Your task to perform on an android device: What's the weather like in Johannesburg? Image 0: 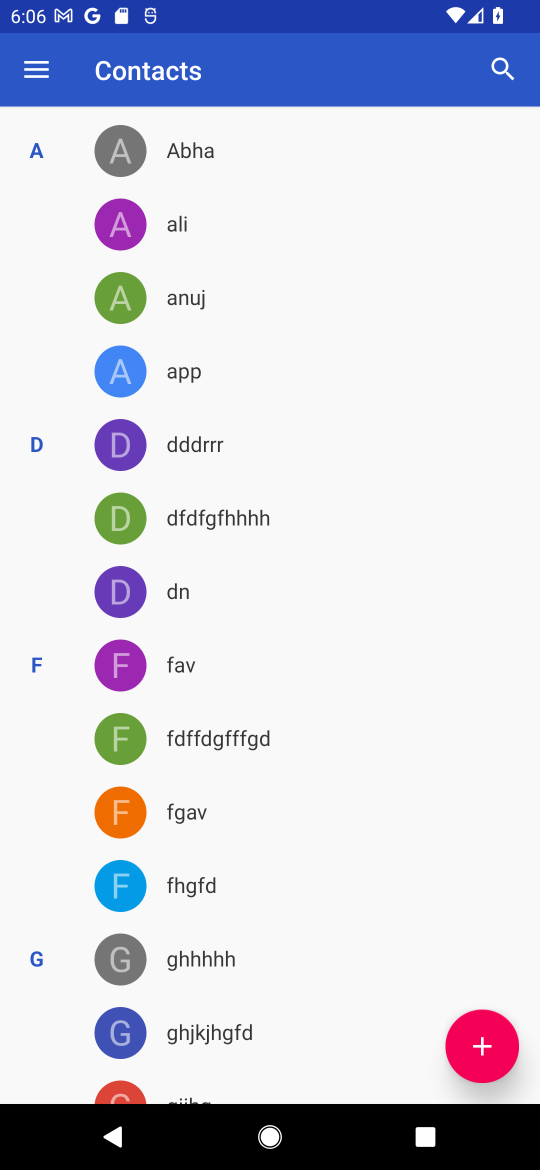
Step 0: press home button
Your task to perform on an android device: What's the weather like in Johannesburg? Image 1: 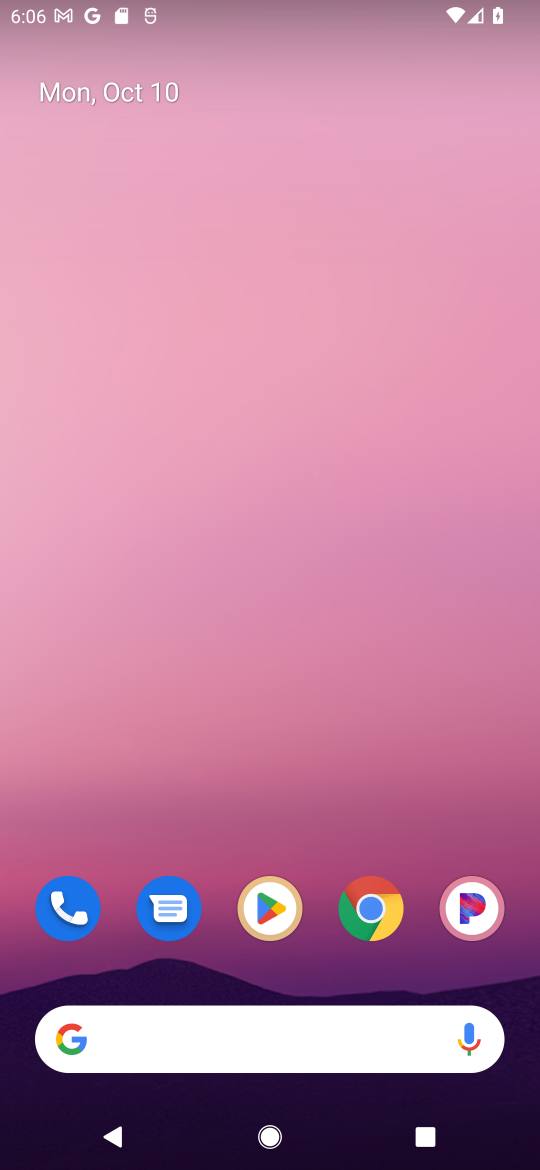
Step 1: drag from (314, 983) to (264, 125)
Your task to perform on an android device: What's the weather like in Johannesburg? Image 2: 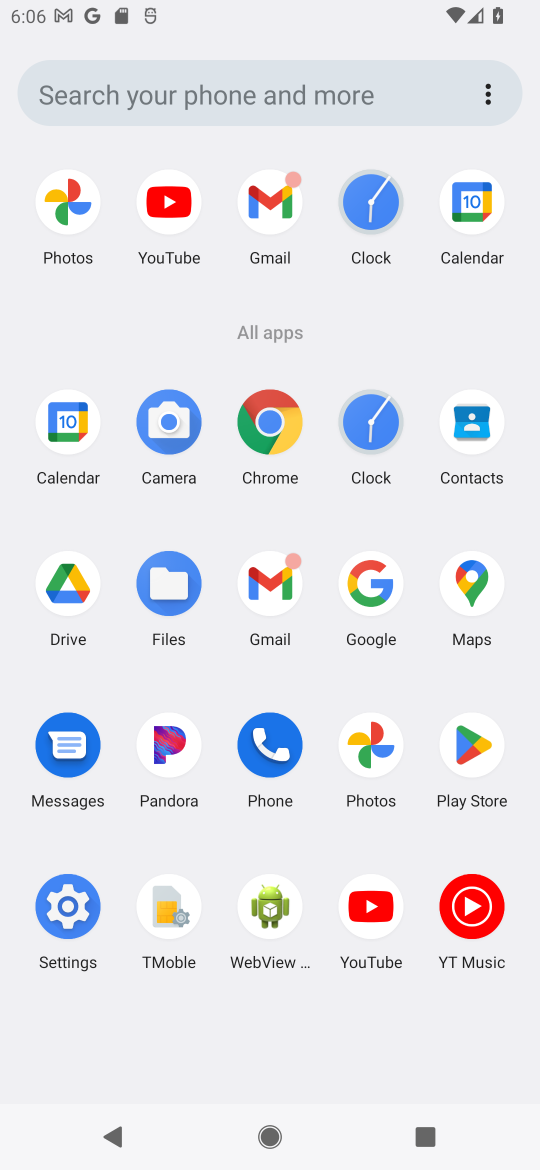
Step 2: click (261, 423)
Your task to perform on an android device: What's the weather like in Johannesburg? Image 3: 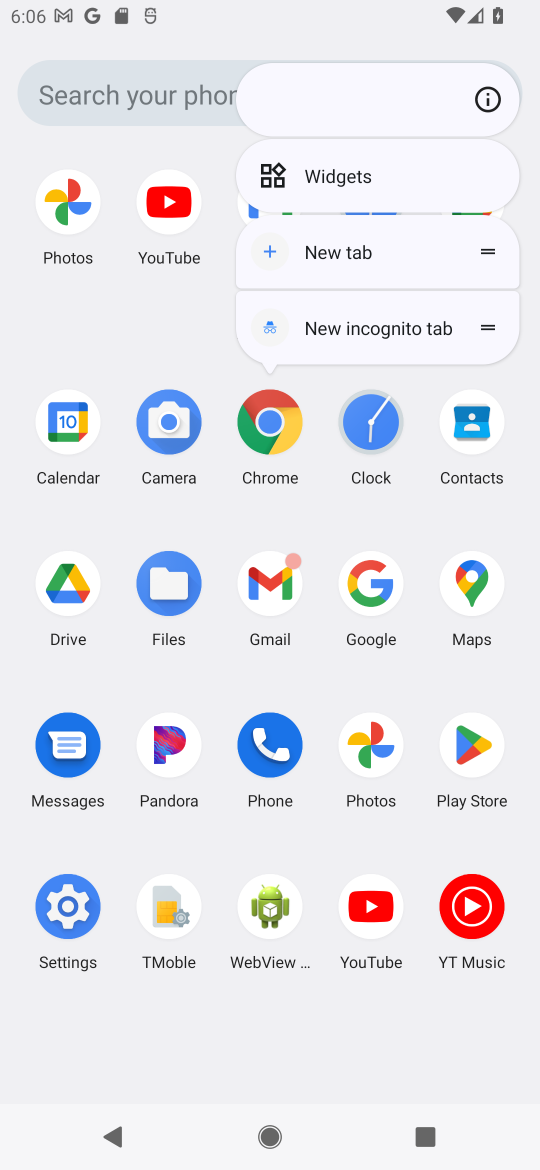
Step 3: click (256, 411)
Your task to perform on an android device: What's the weather like in Johannesburg? Image 4: 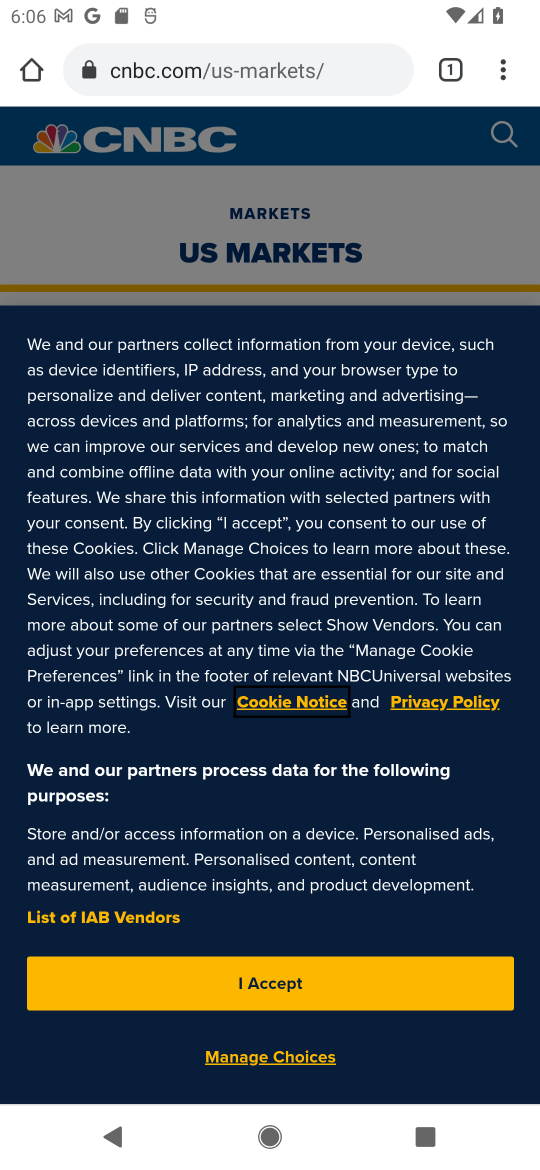
Step 4: click (250, 76)
Your task to perform on an android device: What's the weather like in Johannesburg? Image 5: 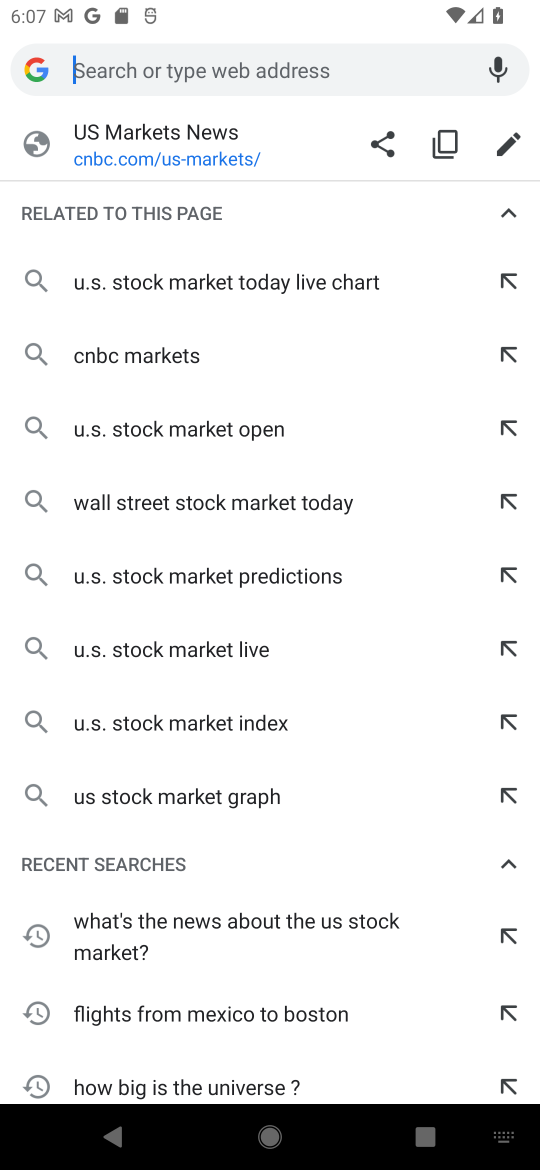
Step 5: type "What's the weather like in Johannesburg?"
Your task to perform on an android device: What's the weather like in Johannesburg? Image 6: 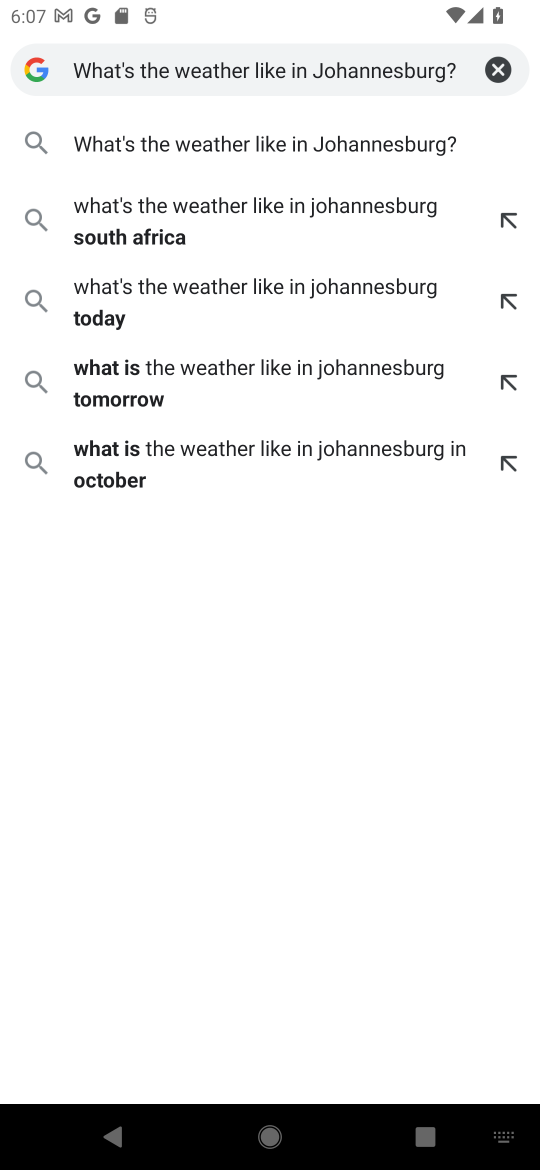
Step 6: press enter
Your task to perform on an android device: What's the weather like in Johannesburg? Image 7: 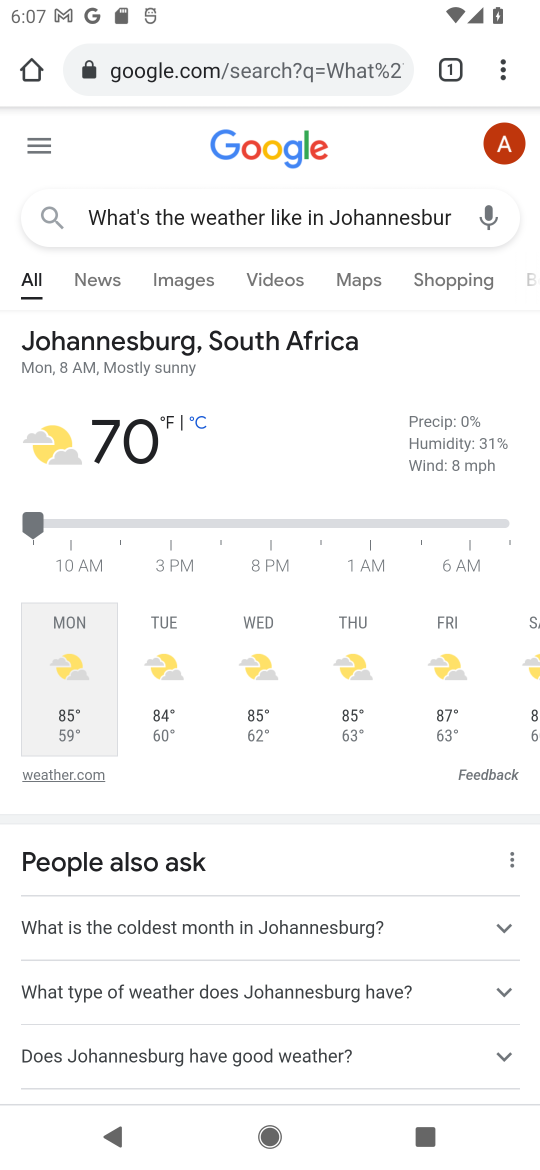
Step 7: task complete